Your task to perform on an android device: check google app version Image 0: 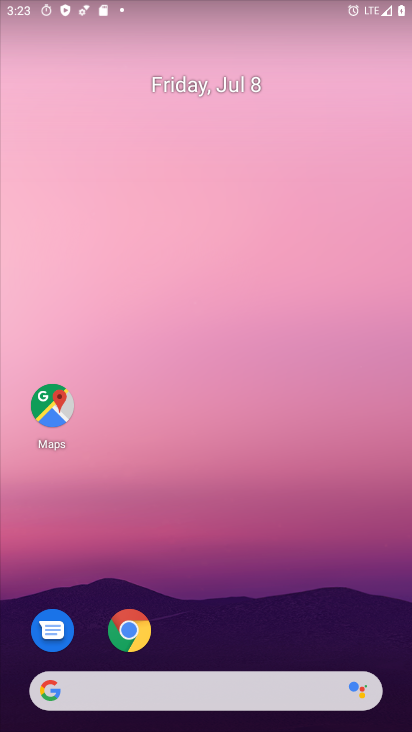
Step 0: drag from (240, 546) to (213, 355)
Your task to perform on an android device: check google app version Image 1: 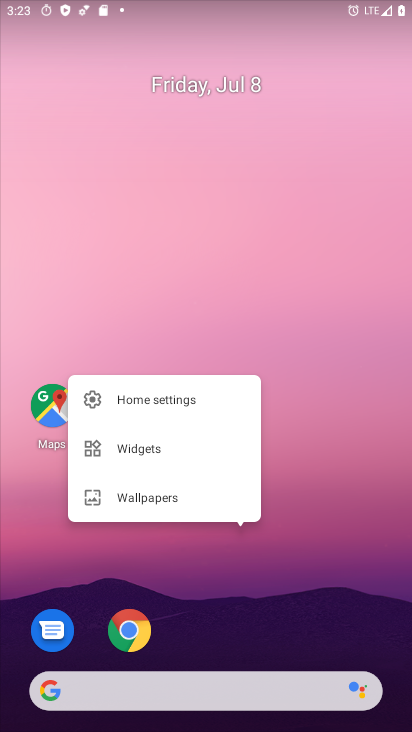
Step 1: click (326, 336)
Your task to perform on an android device: check google app version Image 2: 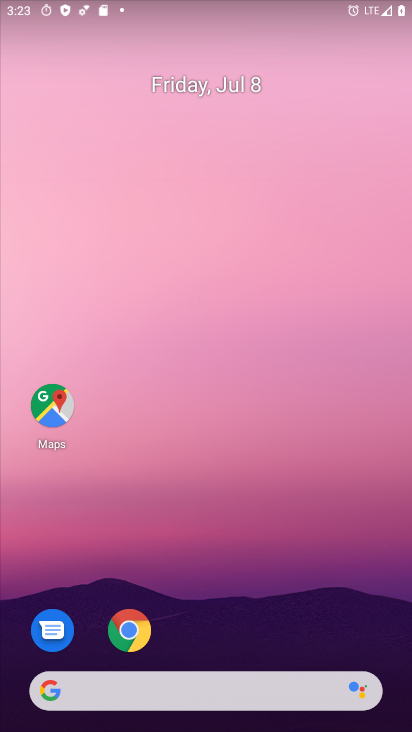
Step 2: drag from (276, 534) to (244, 323)
Your task to perform on an android device: check google app version Image 3: 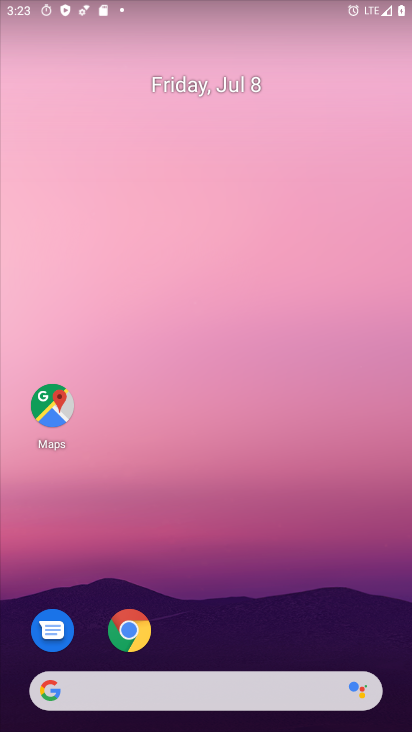
Step 3: drag from (247, 544) to (200, 182)
Your task to perform on an android device: check google app version Image 4: 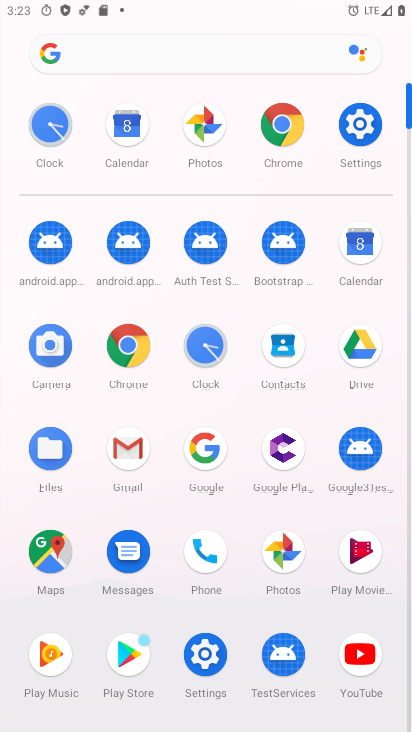
Step 4: click (207, 454)
Your task to perform on an android device: check google app version Image 5: 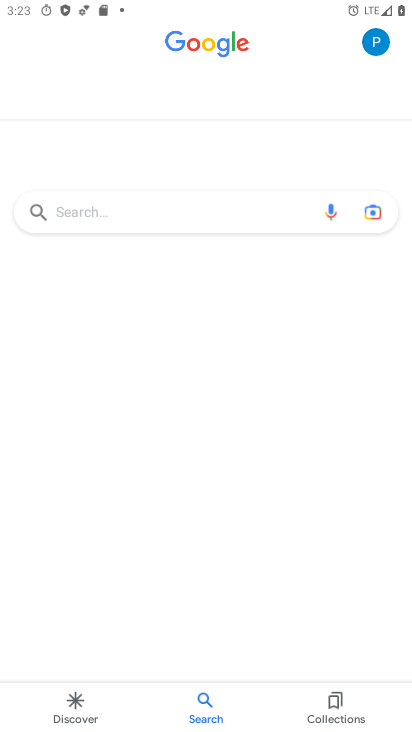
Step 5: click (379, 40)
Your task to perform on an android device: check google app version Image 6: 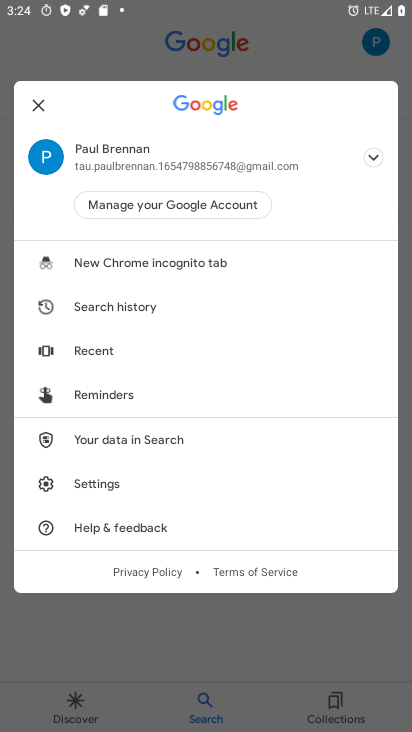
Step 6: click (93, 478)
Your task to perform on an android device: check google app version Image 7: 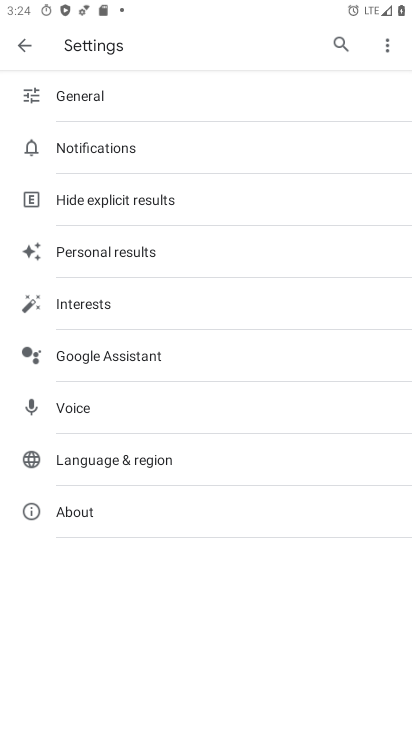
Step 7: click (86, 507)
Your task to perform on an android device: check google app version Image 8: 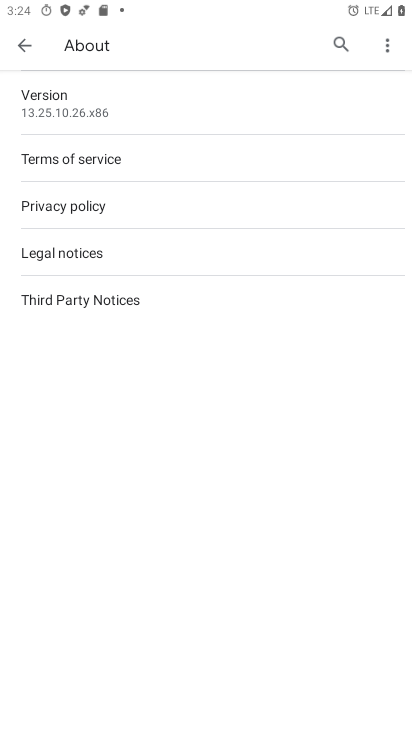
Step 8: task complete